Your task to perform on an android device: What's on my calendar tomorrow? Image 0: 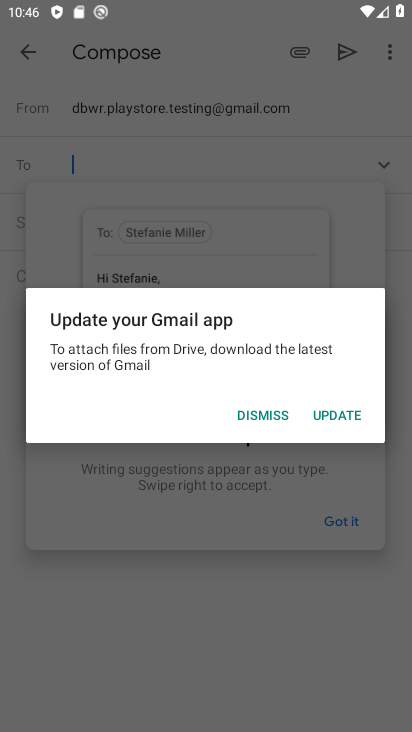
Step 0: press home button
Your task to perform on an android device: What's on my calendar tomorrow? Image 1: 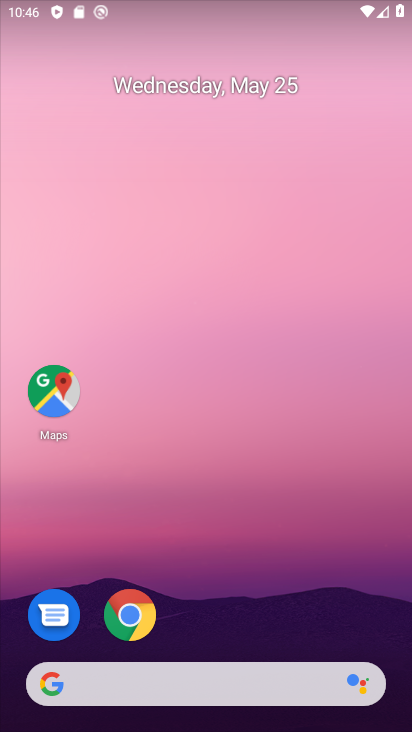
Step 1: drag from (225, 620) to (226, 196)
Your task to perform on an android device: What's on my calendar tomorrow? Image 2: 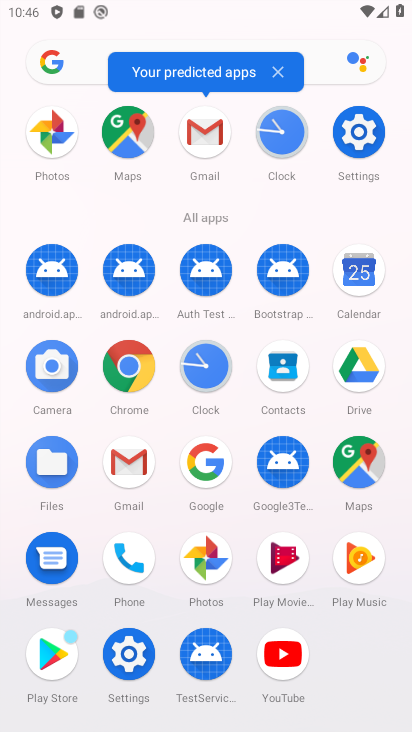
Step 2: click (342, 278)
Your task to perform on an android device: What's on my calendar tomorrow? Image 3: 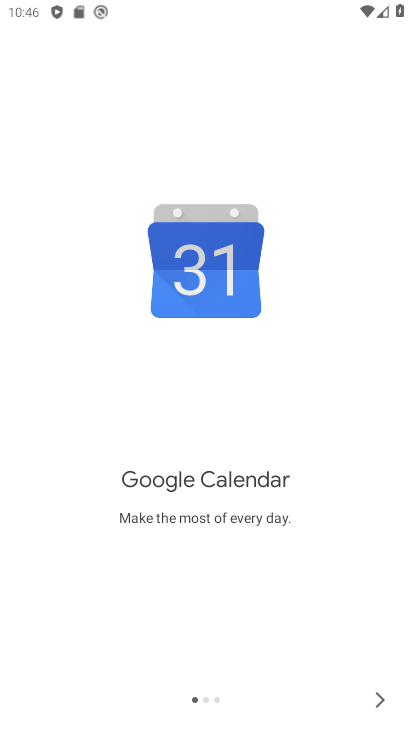
Step 3: click (380, 694)
Your task to perform on an android device: What's on my calendar tomorrow? Image 4: 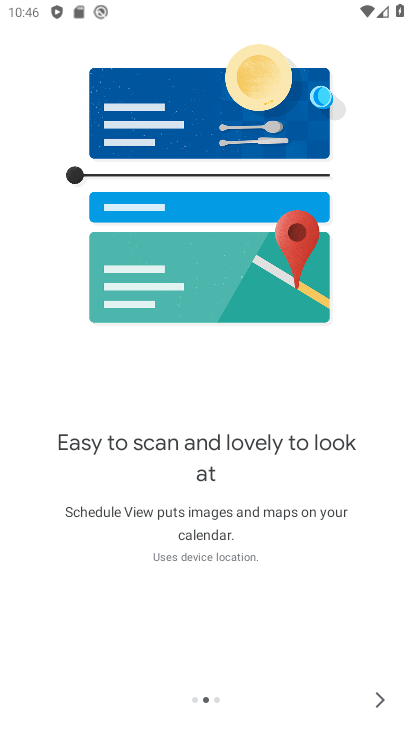
Step 4: click (380, 694)
Your task to perform on an android device: What's on my calendar tomorrow? Image 5: 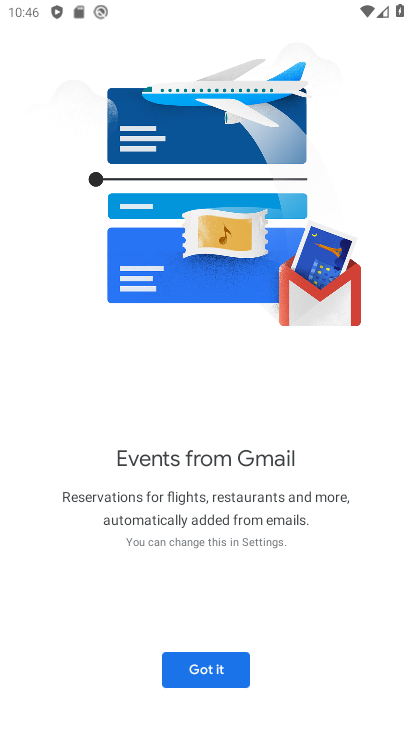
Step 5: click (188, 669)
Your task to perform on an android device: What's on my calendar tomorrow? Image 6: 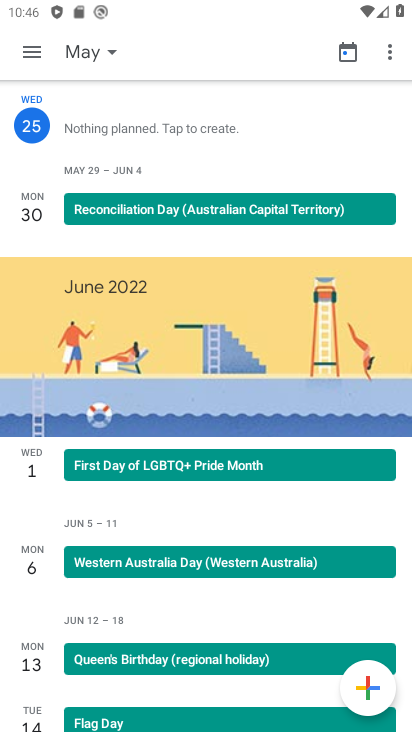
Step 6: click (30, 55)
Your task to perform on an android device: What's on my calendar tomorrow? Image 7: 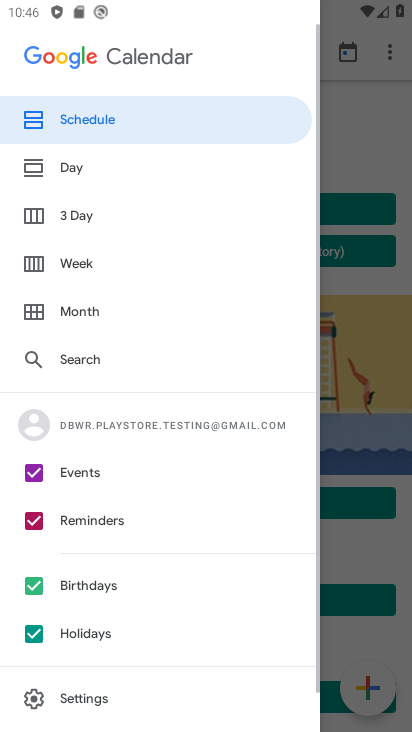
Step 7: click (84, 172)
Your task to perform on an android device: What's on my calendar tomorrow? Image 8: 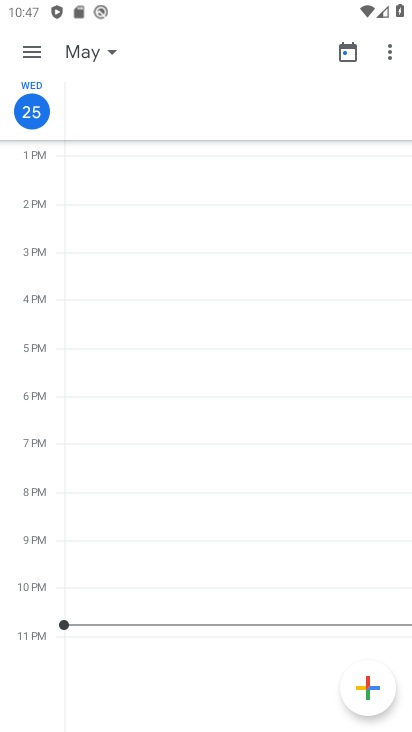
Step 8: click (104, 50)
Your task to perform on an android device: What's on my calendar tomorrow? Image 9: 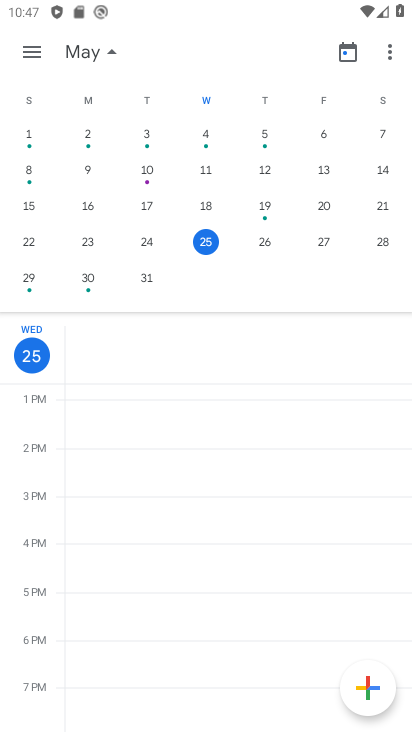
Step 9: click (265, 245)
Your task to perform on an android device: What's on my calendar tomorrow? Image 10: 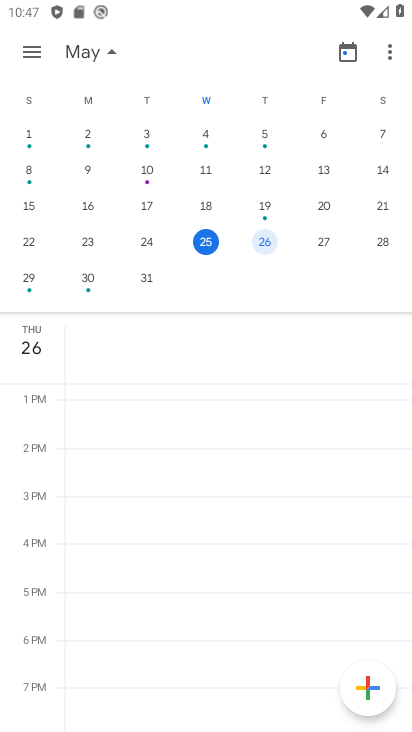
Step 10: task complete